Your task to perform on an android device: Search for vegetarian restaurants on Maps Image 0: 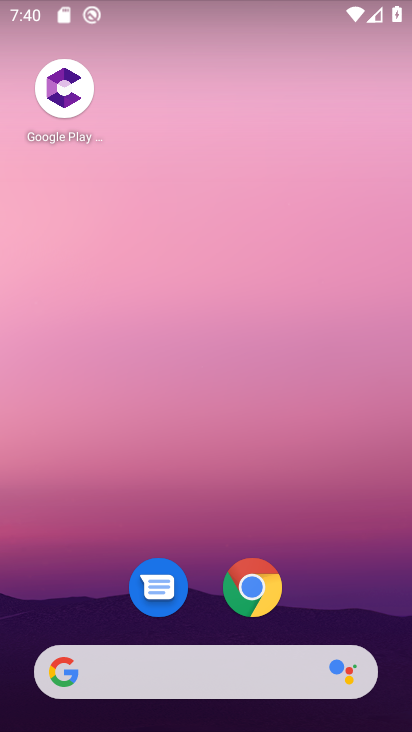
Step 0: drag from (317, 579) to (220, 4)
Your task to perform on an android device: Search for vegetarian restaurants on Maps Image 1: 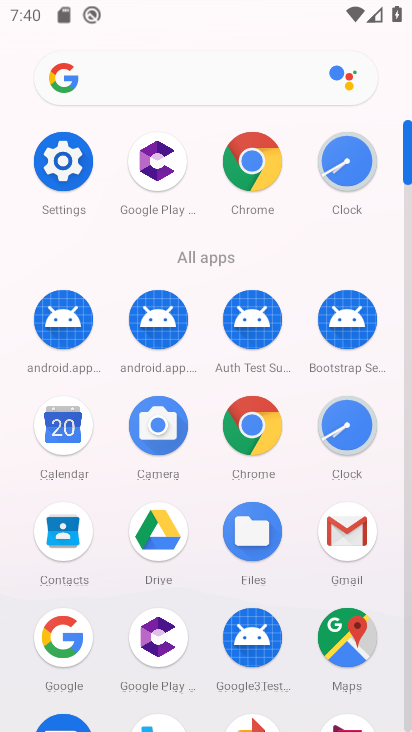
Step 1: click (346, 639)
Your task to perform on an android device: Search for vegetarian restaurants on Maps Image 2: 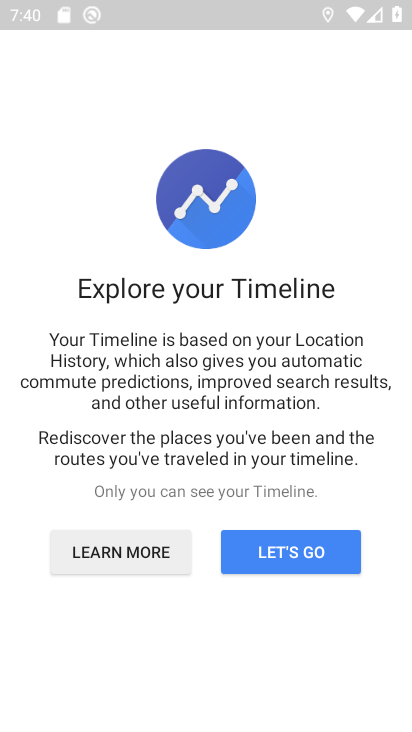
Step 2: click (277, 552)
Your task to perform on an android device: Search for vegetarian restaurants on Maps Image 3: 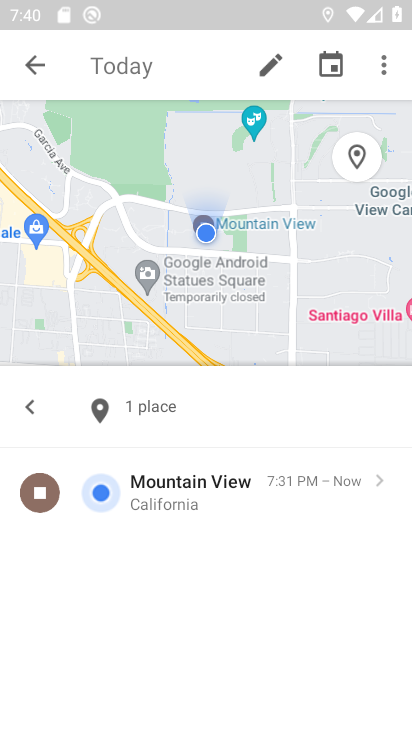
Step 3: click (36, 79)
Your task to perform on an android device: Search for vegetarian restaurants on Maps Image 4: 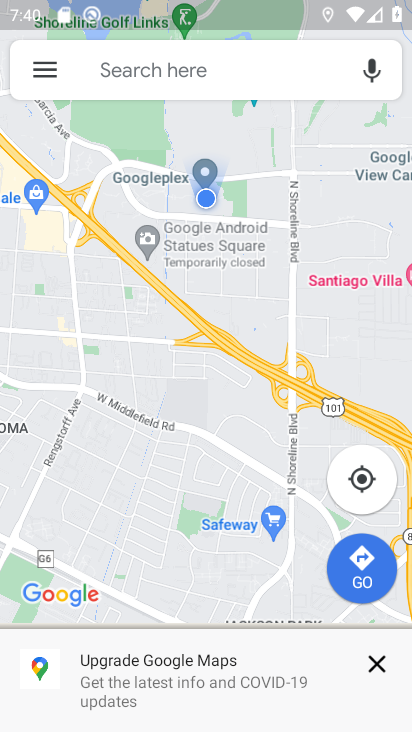
Step 4: click (150, 75)
Your task to perform on an android device: Search for vegetarian restaurants on Maps Image 5: 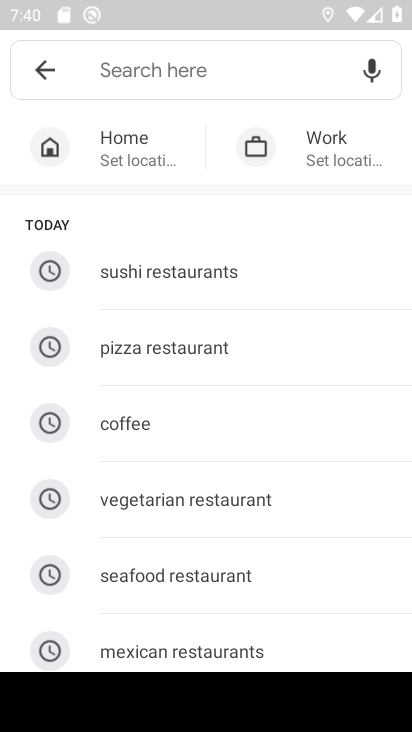
Step 5: click (259, 495)
Your task to perform on an android device: Search for vegetarian restaurants on Maps Image 6: 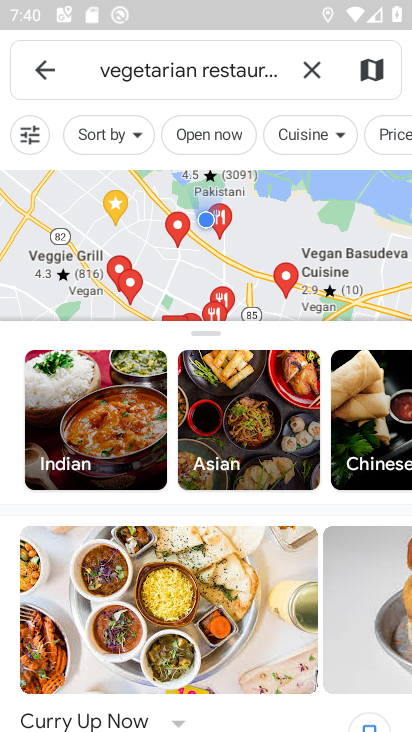
Step 6: task complete